Your task to perform on an android device: Search for vegetarian restaurants on Maps Image 0: 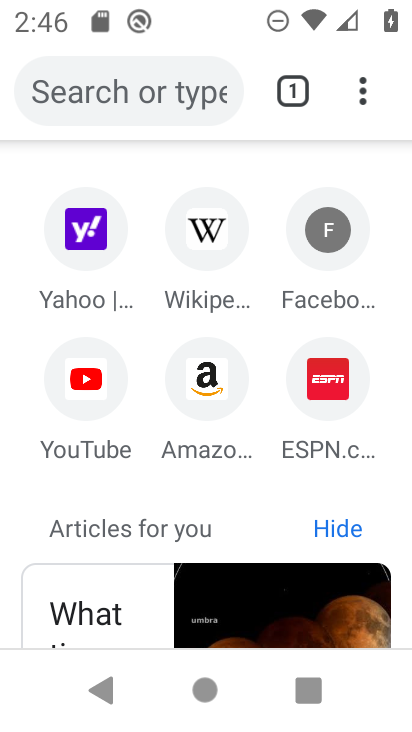
Step 0: press home button
Your task to perform on an android device: Search for vegetarian restaurants on Maps Image 1: 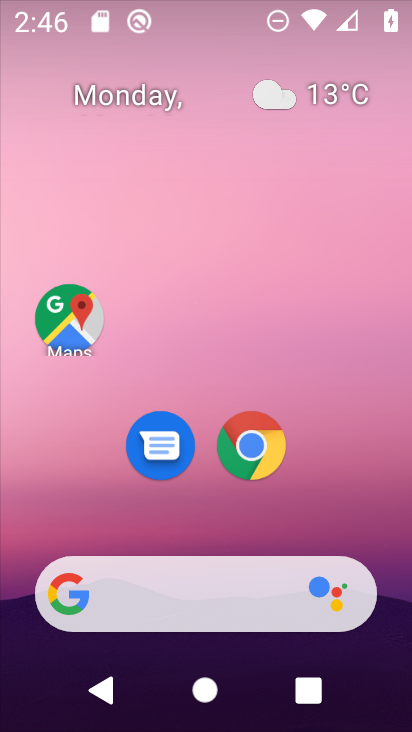
Step 1: drag from (390, 618) to (296, 122)
Your task to perform on an android device: Search for vegetarian restaurants on Maps Image 2: 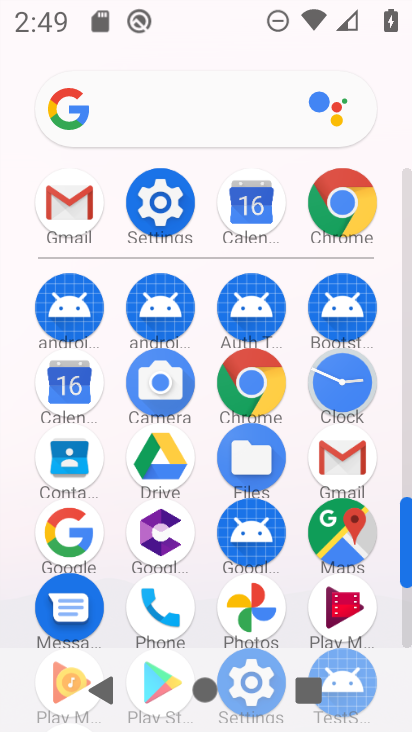
Step 2: click (330, 540)
Your task to perform on an android device: Search for vegetarian restaurants on Maps Image 3: 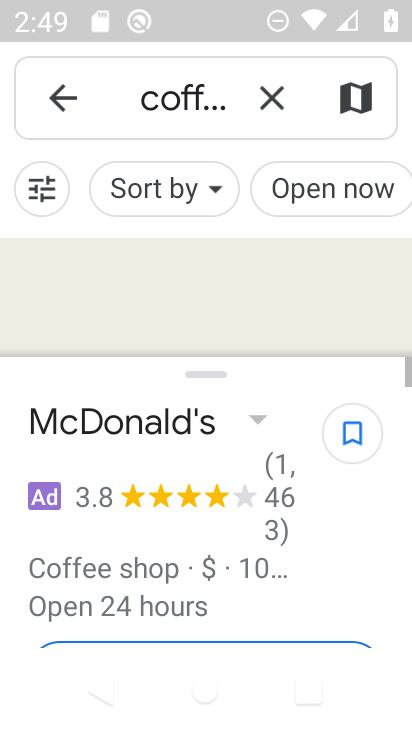
Step 3: click (264, 98)
Your task to perform on an android device: Search for vegetarian restaurants on Maps Image 4: 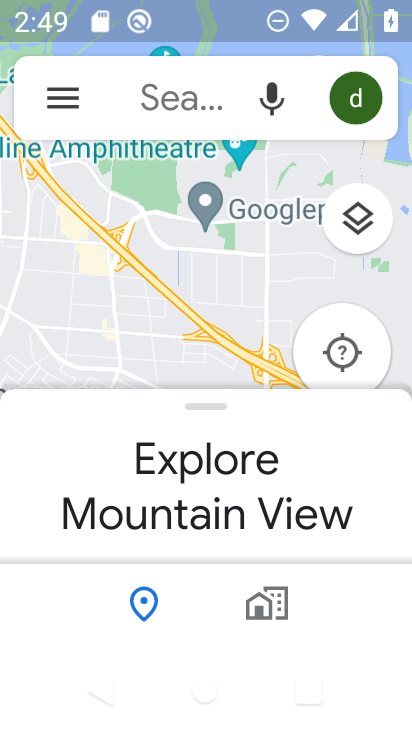
Step 4: click (143, 105)
Your task to perform on an android device: Search for vegetarian restaurants on Maps Image 5: 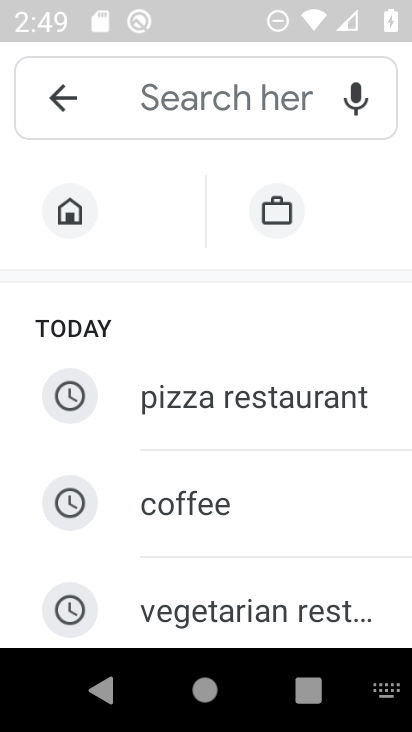
Step 5: drag from (207, 600) to (206, 455)
Your task to perform on an android device: Search for vegetarian restaurants on Maps Image 6: 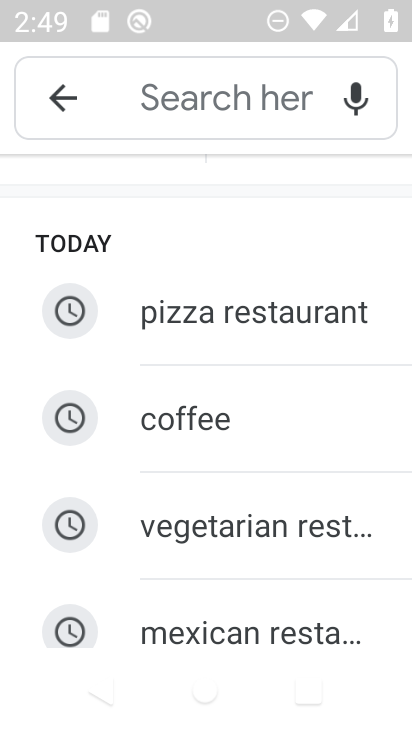
Step 6: click (191, 515)
Your task to perform on an android device: Search for vegetarian restaurants on Maps Image 7: 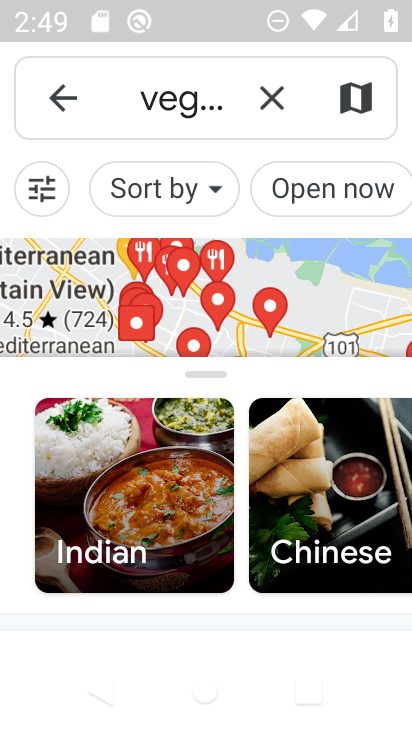
Step 7: task complete